Your task to perform on an android device: toggle javascript in the chrome app Image 0: 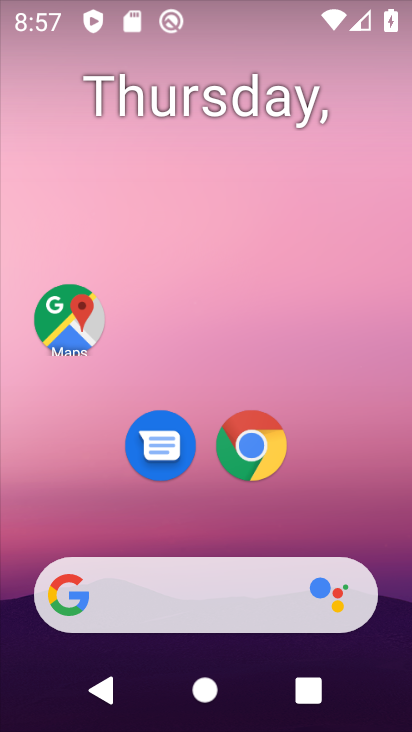
Step 0: press home button
Your task to perform on an android device: toggle javascript in the chrome app Image 1: 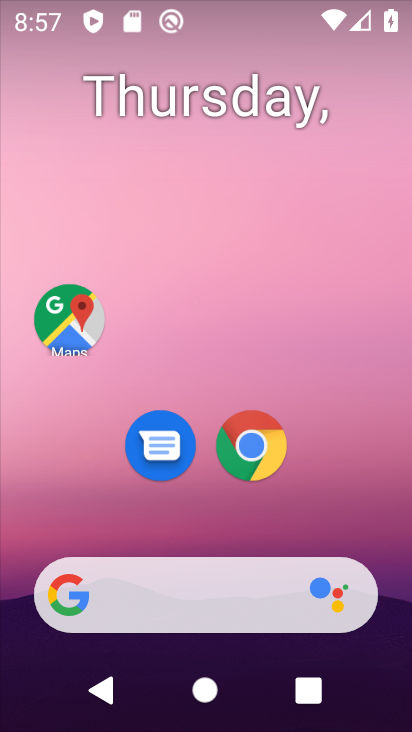
Step 1: click (240, 443)
Your task to perform on an android device: toggle javascript in the chrome app Image 2: 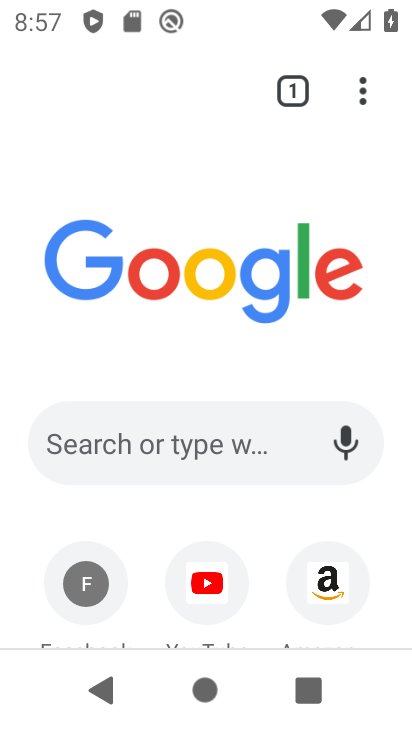
Step 2: click (365, 88)
Your task to perform on an android device: toggle javascript in the chrome app Image 3: 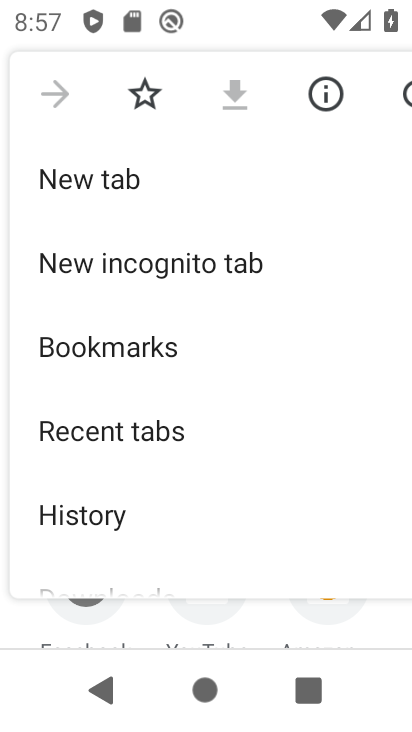
Step 3: drag from (268, 444) to (313, 72)
Your task to perform on an android device: toggle javascript in the chrome app Image 4: 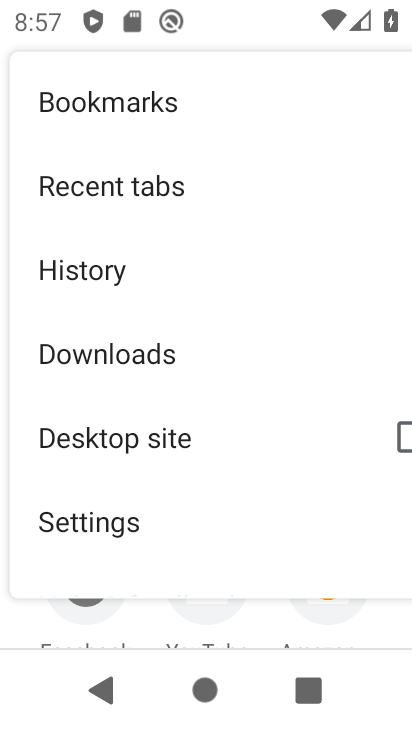
Step 4: click (83, 533)
Your task to perform on an android device: toggle javascript in the chrome app Image 5: 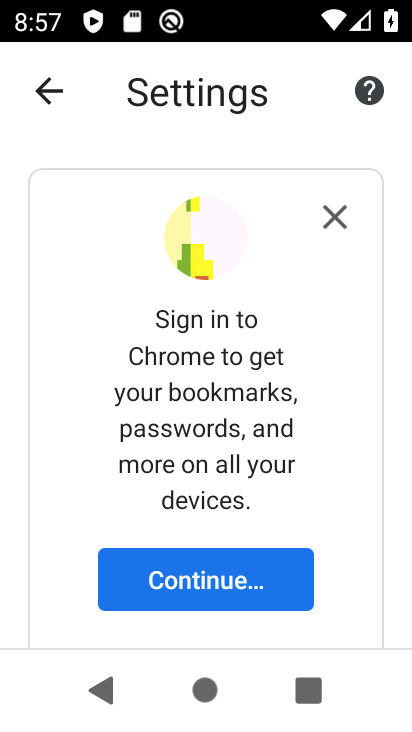
Step 5: drag from (83, 533) to (214, 39)
Your task to perform on an android device: toggle javascript in the chrome app Image 6: 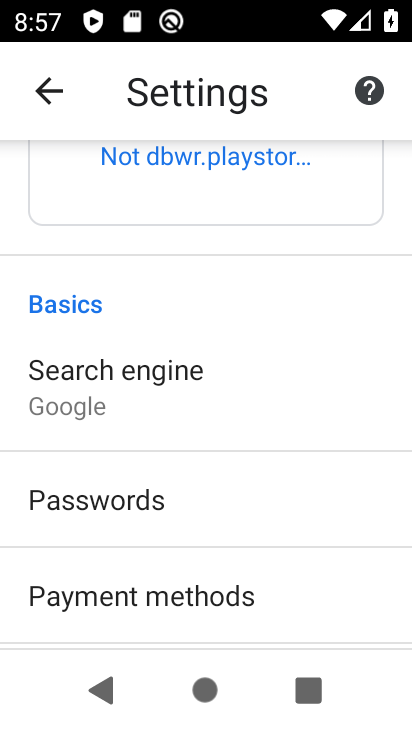
Step 6: drag from (242, 469) to (266, 22)
Your task to perform on an android device: toggle javascript in the chrome app Image 7: 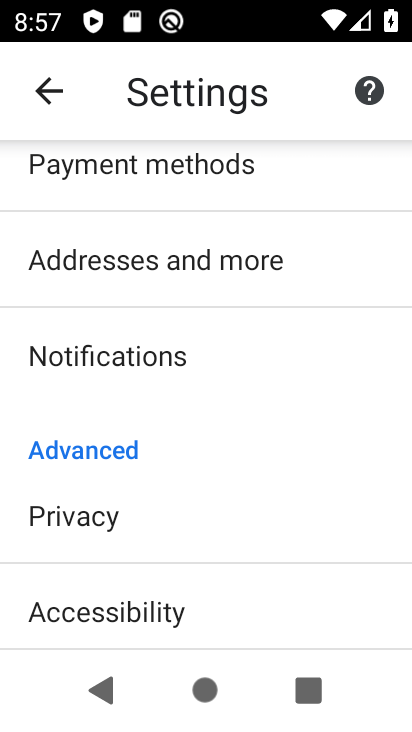
Step 7: drag from (302, 518) to (387, 33)
Your task to perform on an android device: toggle javascript in the chrome app Image 8: 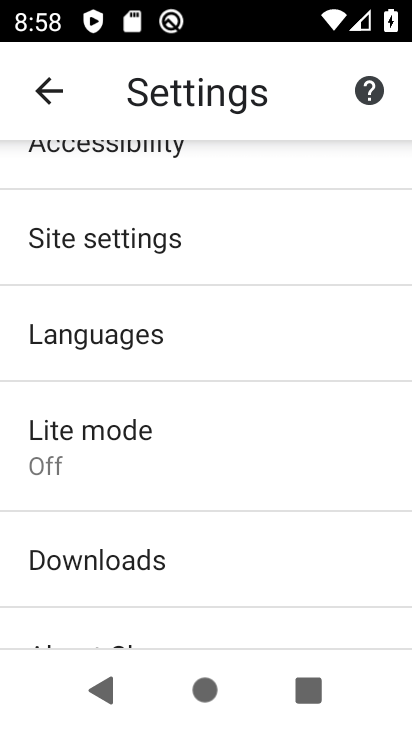
Step 8: click (120, 237)
Your task to perform on an android device: toggle javascript in the chrome app Image 9: 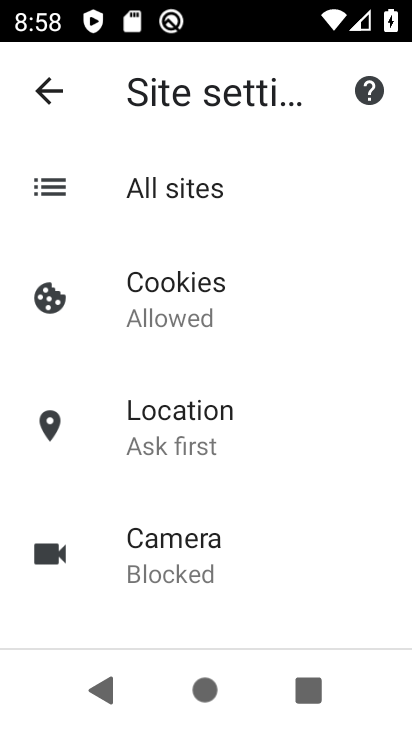
Step 9: drag from (372, 578) to (339, 29)
Your task to perform on an android device: toggle javascript in the chrome app Image 10: 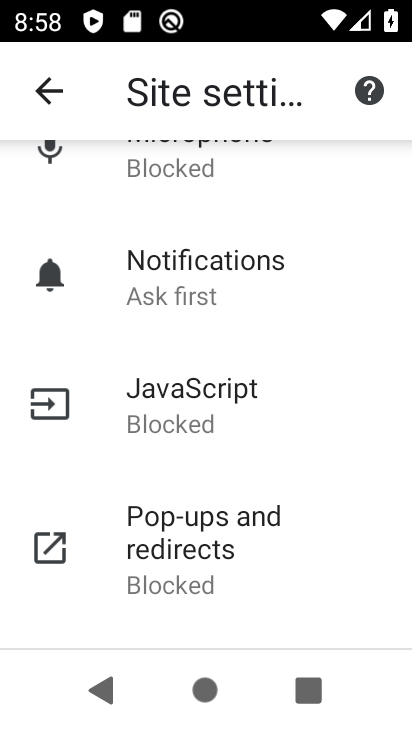
Step 10: click (185, 408)
Your task to perform on an android device: toggle javascript in the chrome app Image 11: 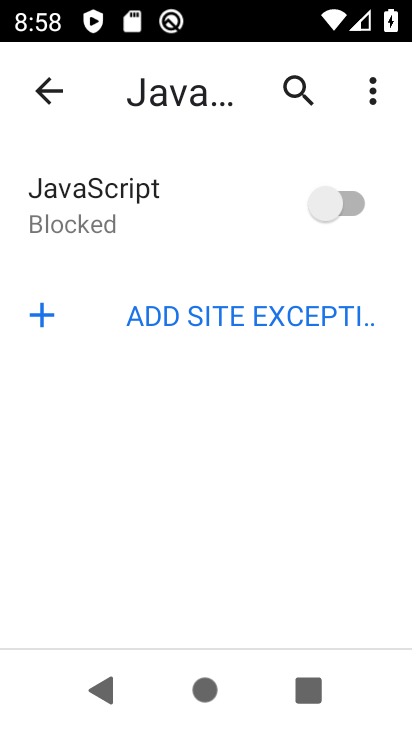
Step 11: click (313, 216)
Your task to perform on an android device: toggle javascript in the chrome app Image 12: 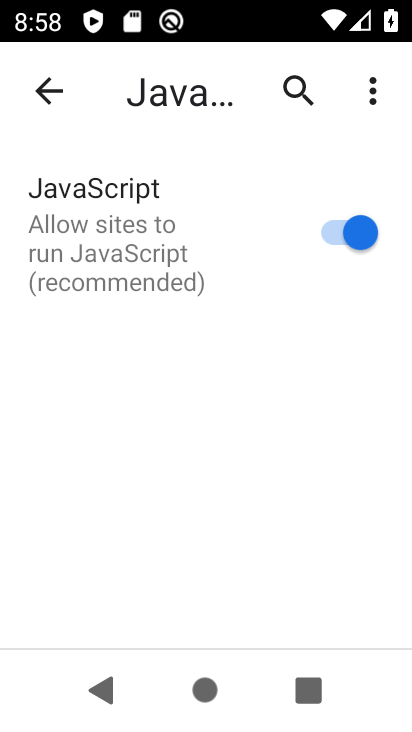
Step 12: task complete